Your task to perform on an android device: open chrome and create a bookmark for the current page Image 0: 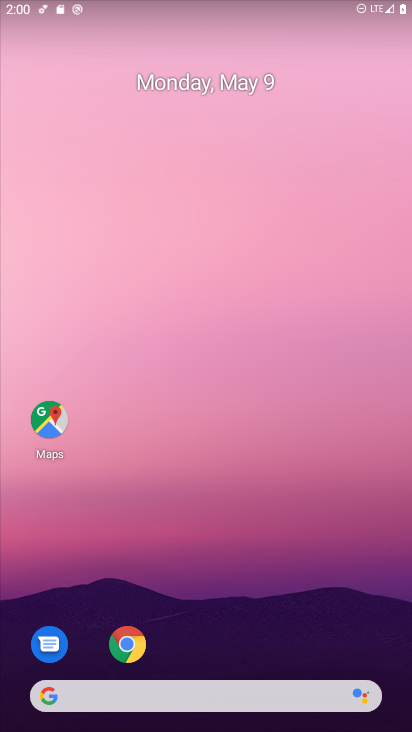
Step 0: click (136, 649)
Your task to perform on an android device: open chrome and create a bookmark for the current page Image 1: 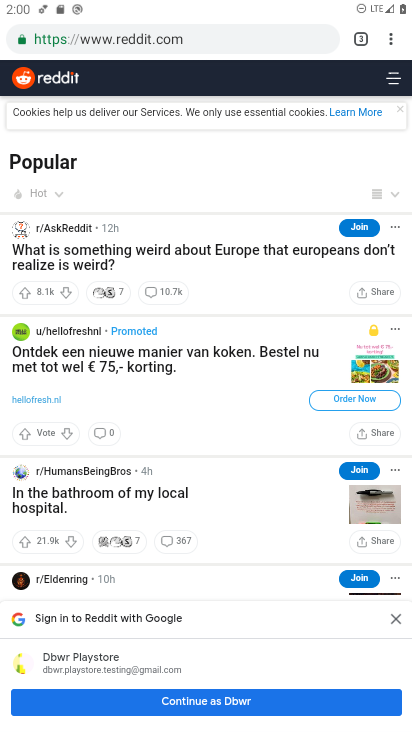
Step 1: click (394, 39)
Your task to perform on an android device: open chrome and create a bookmark for the current page Image 2: 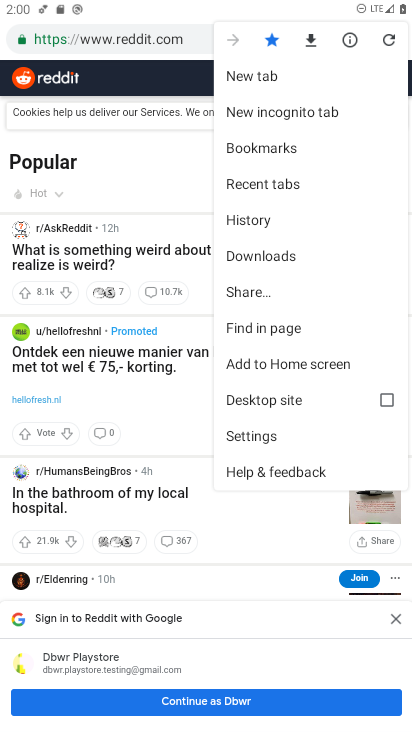
Step 2: task complete